Your task to perform on an android device: Open eBay Image 0: 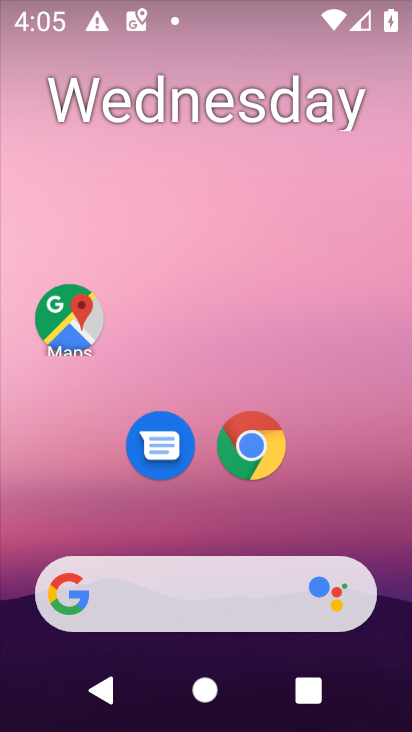
Step 0: drag from (343, 497) to (326, 0)
Your task to perform on an android device: Open eBay Image 1: 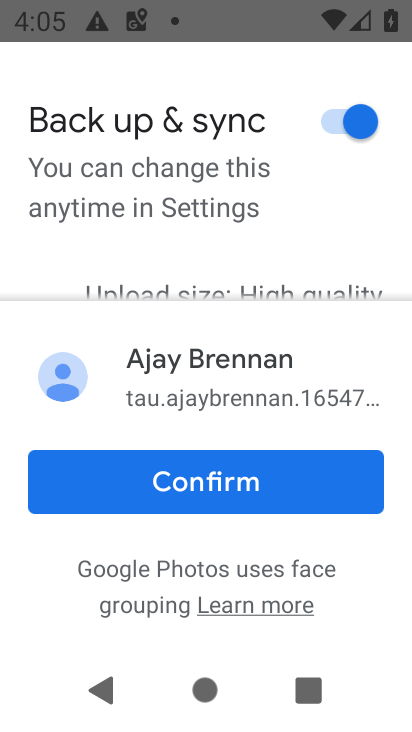
Step 1: press home button
Your task to perform on an android device: Open eBay Image 2: 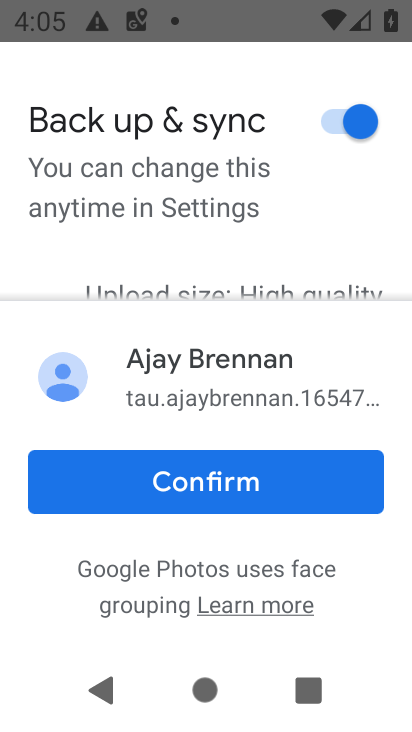
Step 2: press home button
Your task to perform on an android device: Open eBay Image 3: 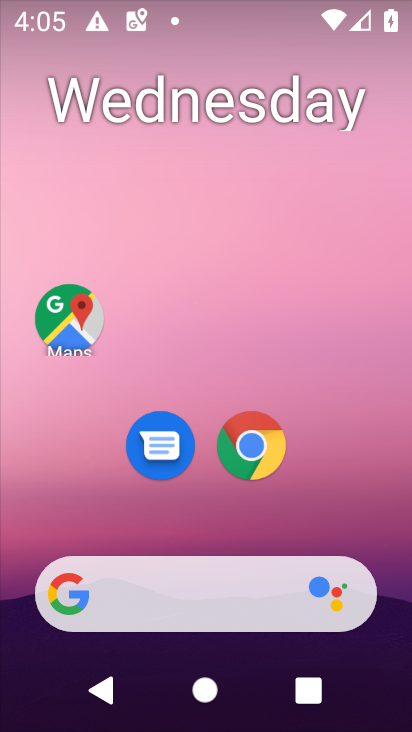
Step 3: drag from (358, 482) to (392, 482)
Your task to perform on an android device: Open eBay Image 4: 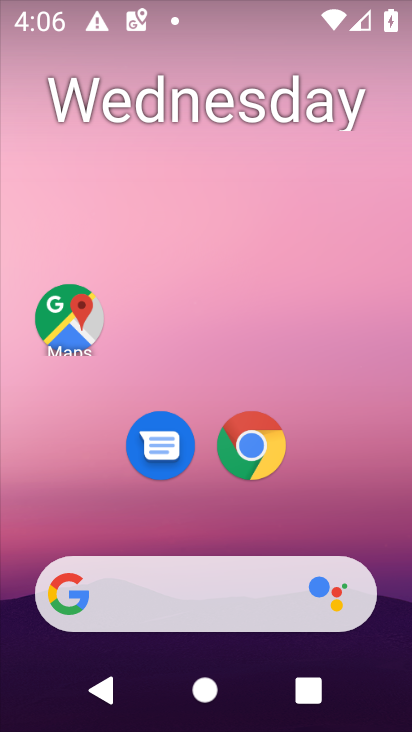
Step 4: drag from (334, 531) to (389, 8)
Your task to perform on an android device: Open eBay Image 5: 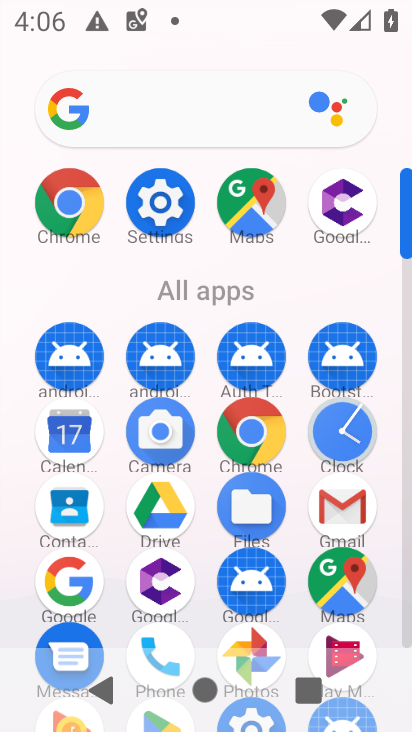
Step 5: click (259, 432)
Your task to perform on an android device: Open eBay Image 6: 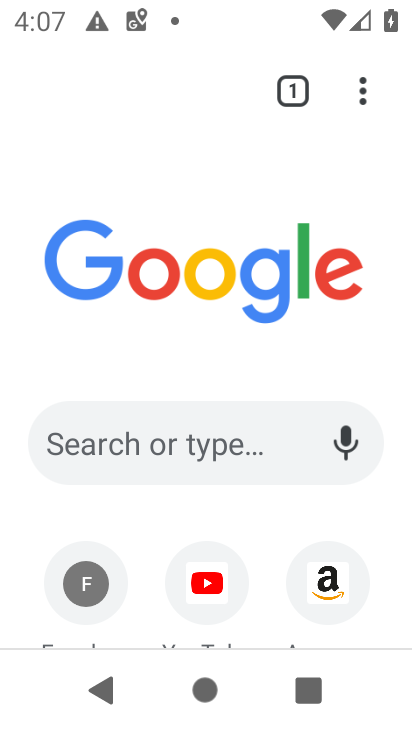
Step 6: click (242, 437)
Your task to perform on an android device: Open eBay Image 7: 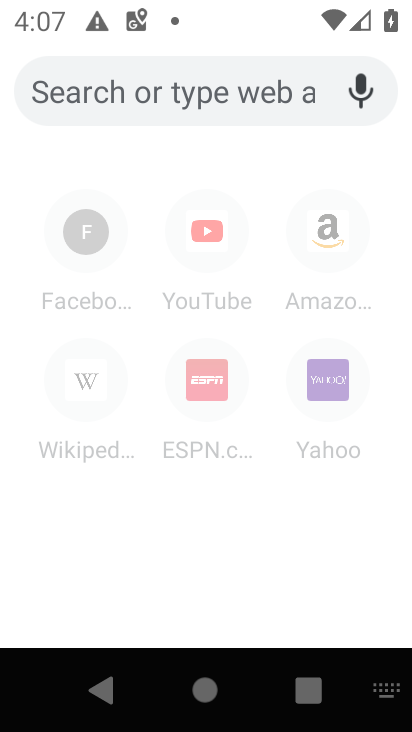
Step 7: type ""
Your task to perform on an android device: Open eBay Image 8: 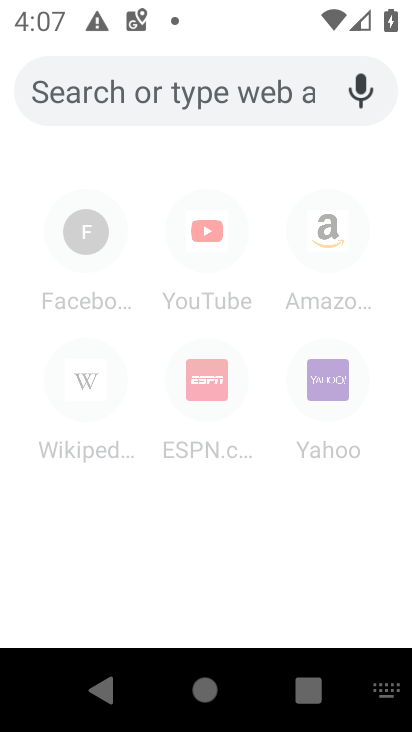
Step 8: type "ebay"
Your task to perform on an android device: Open eBay Image 9: 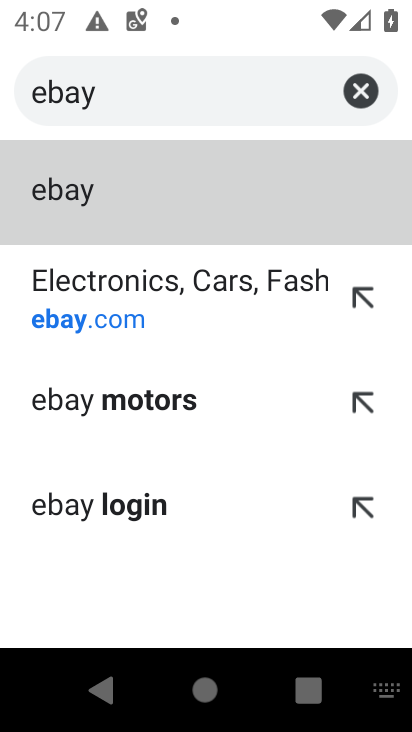
Step 9: click (92, 314)
Your task to perform on an android device: Open eBay Image 10: 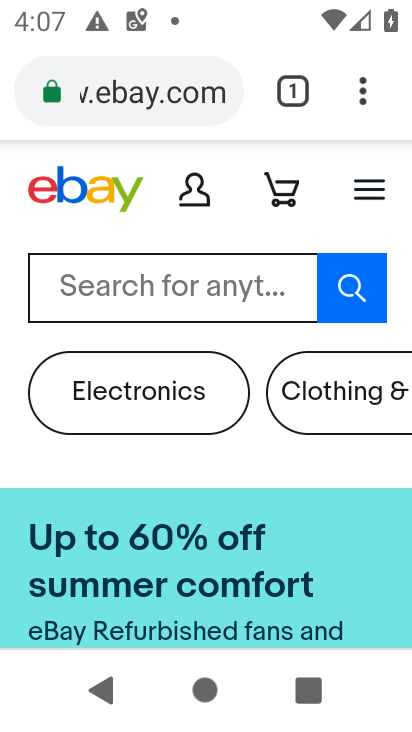
Step 10: task complete